Your task to perform on an android device: Open the downloads Image 0: 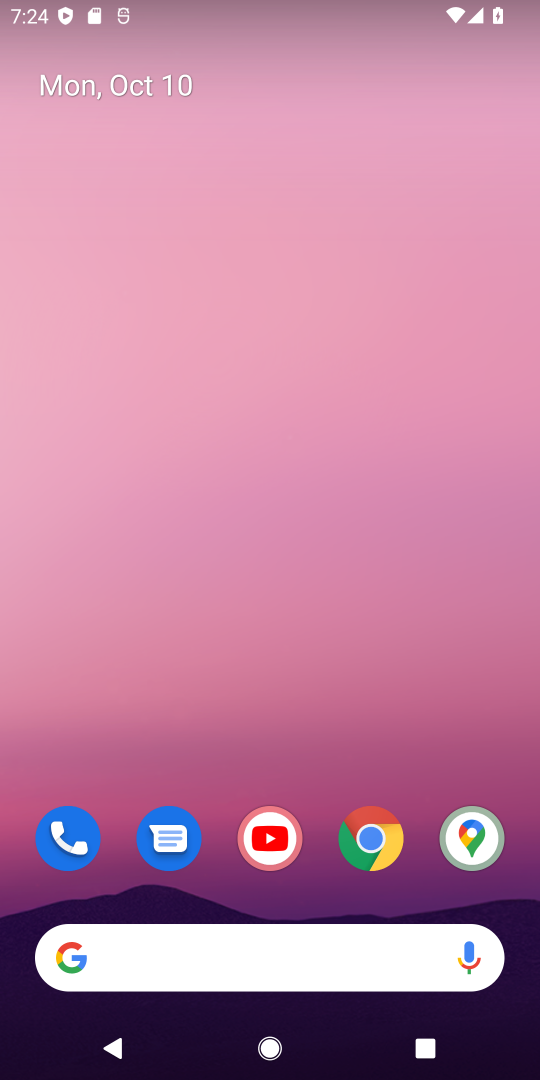
Step 0: drag from (419, 900) to (383, 94)
Your task to perform on an android device: Open the downloads Image 1: 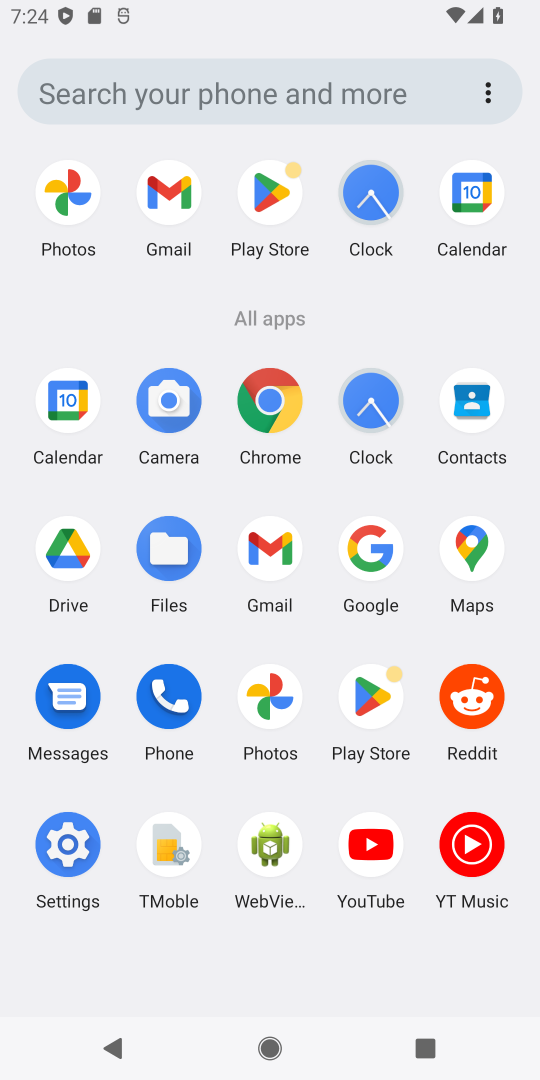
Step 1: click (274, 395)
Your task to perform on an android device: Open the downloads Image 2: 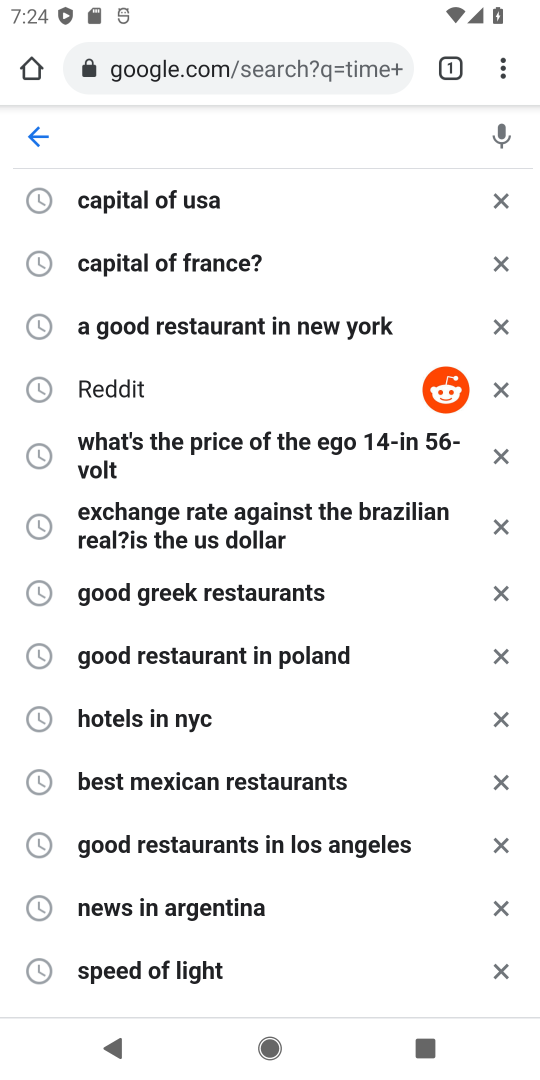
Step 2: click (505, 80)
Your task to perform on an android device: Open the downloads Image 3: 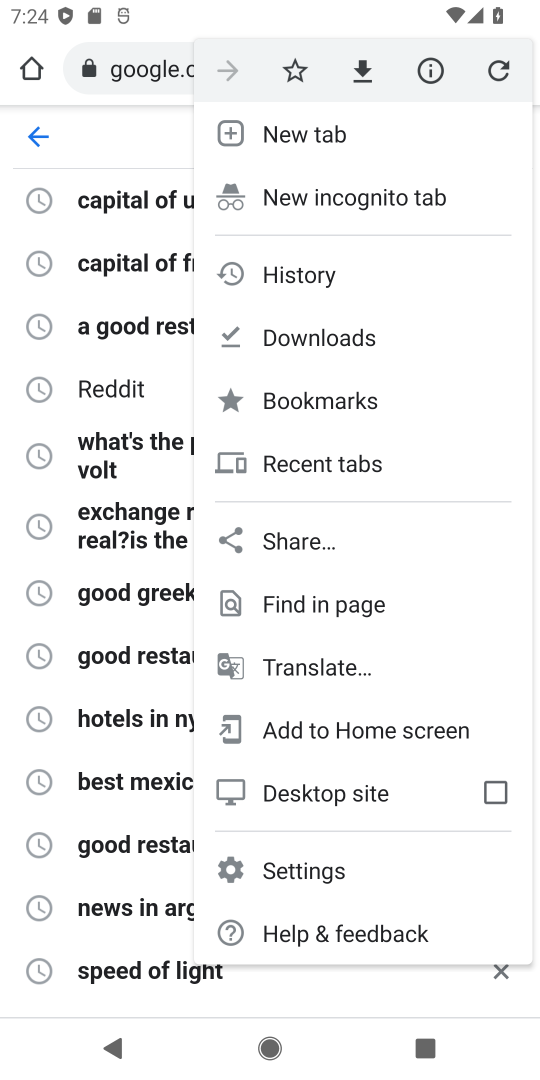
Step 3: click (290, 346)
Your task to perform on an android device: Open the downloads Image 4: 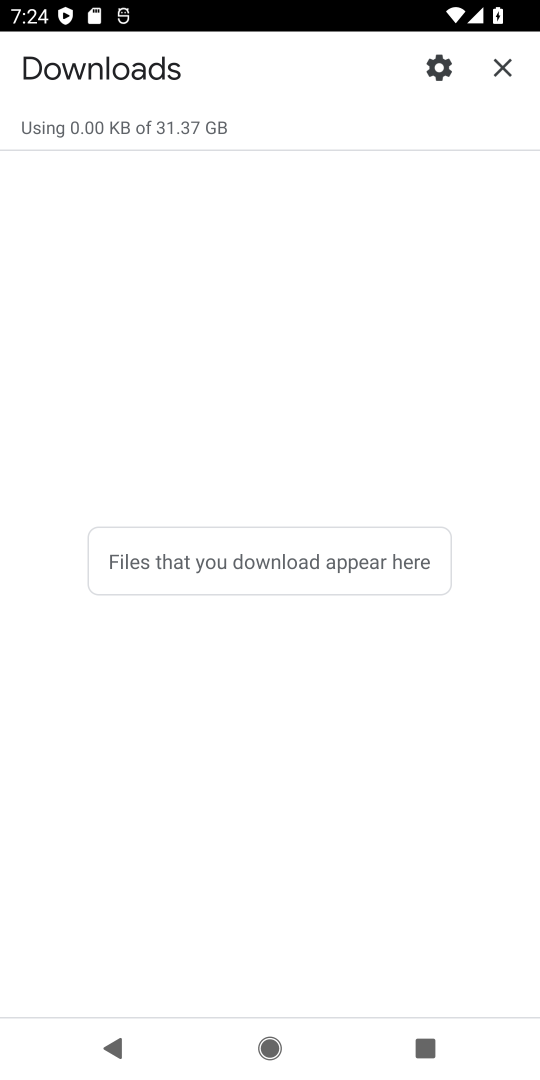
Step 4: task complete